Your task to perform on an android device: Go to eBay Image 0: 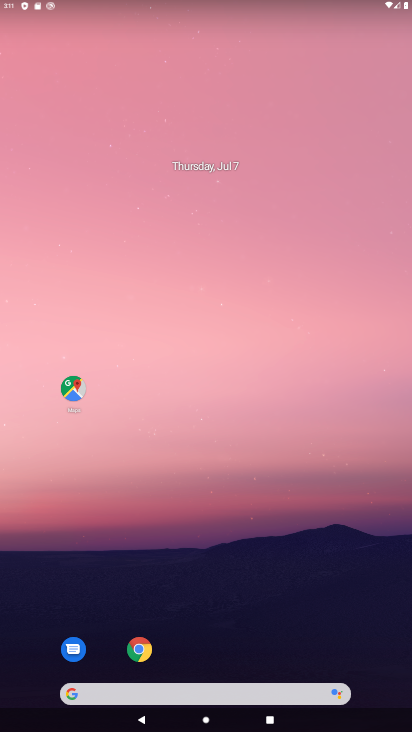
Step 0: drag from (372, 627) to (154, 65)
Your task to perform on an android device: Go to eBay Image 1: 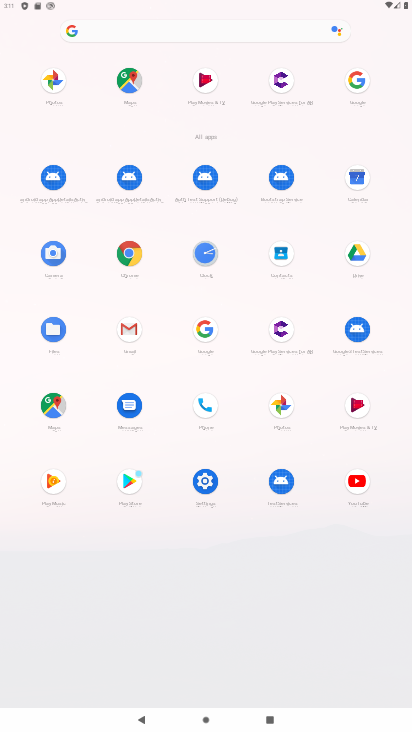
Step 1: click (202, 331)
Your task to perform on an android device: Go to eBay Image 2: 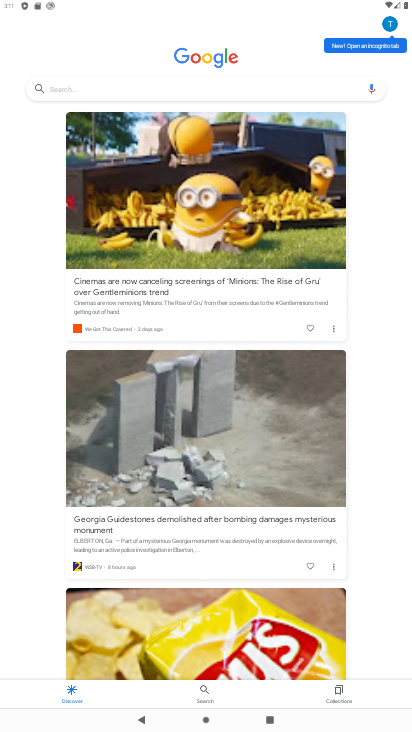
Step 2: click (92, 97)
Your task to perform on an android device: Go to eBay Image 3: 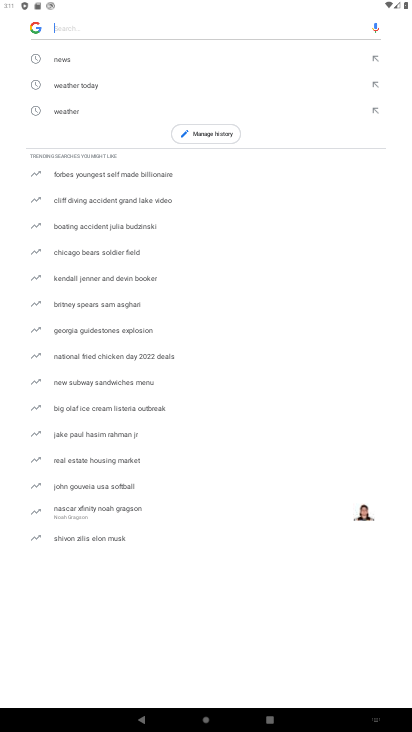
Step 3: type "ebay"
Your task to perform on an android device: Go to eBay Image 4: 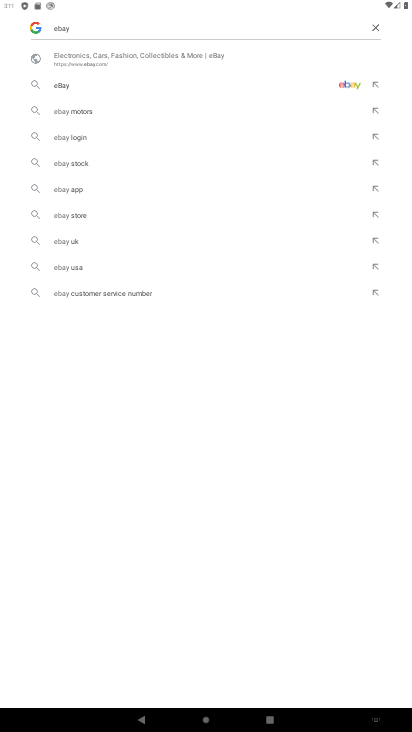
Step 4: click (85, 82)
Your task to perform on an android device: Go to eBay Image 5: 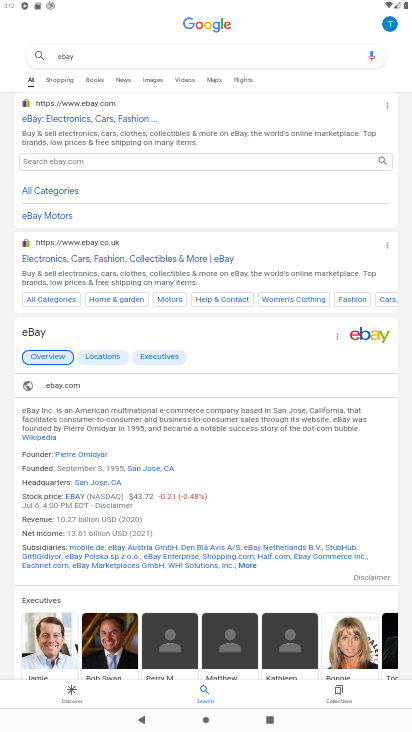
Step 5: task complete